Your task to perform on an android device: Show me recent news Image 0: 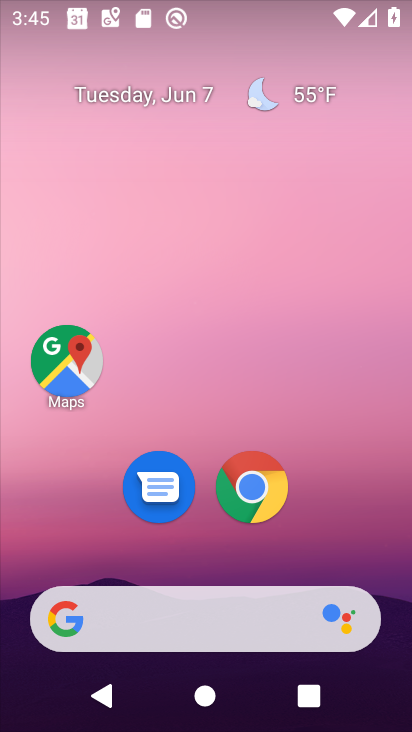
Step 0: press home button
Your task to perform on an android device: Show me recent news Image 1: 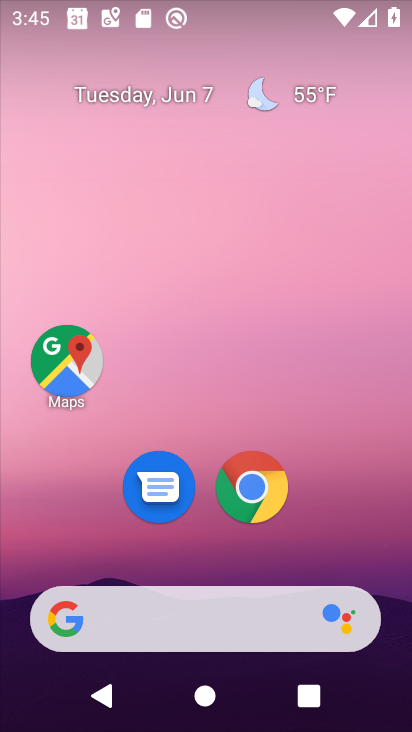
Step 1: drag from (212, 550) to (246, 114)
Your task to perform on an android device: Show me recent news Image 2: 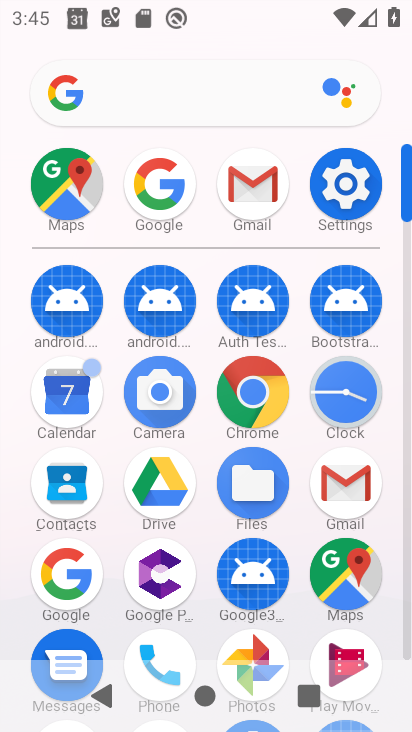
Step 2: click (58, 575)
Your task to perform on an android device: Show me recent news Image 3: 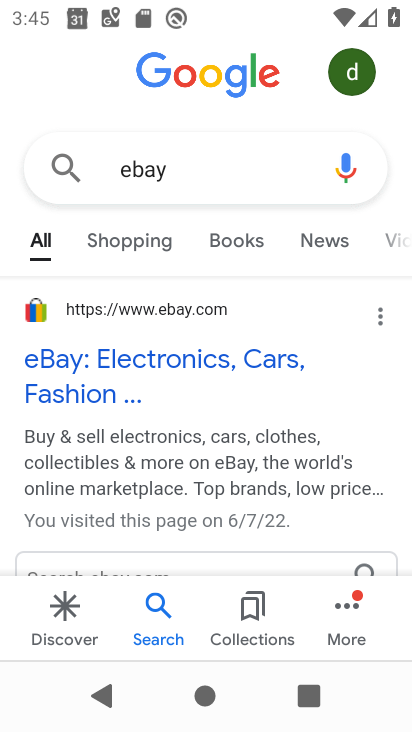
Step 3: click (224, 171)
Your task to perform on an android device: Show me recent news Image 4: 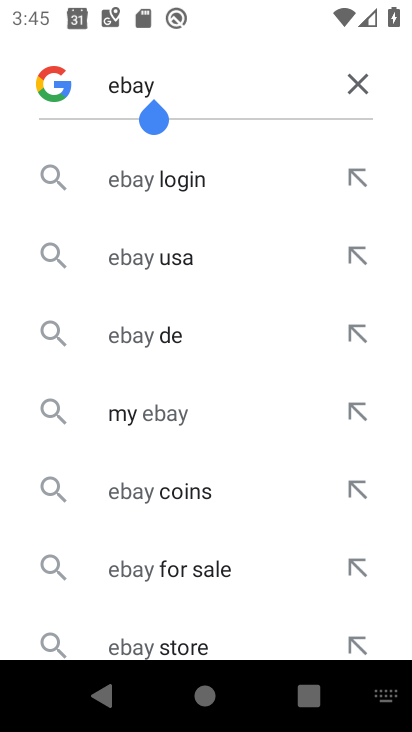
Step 4: click (354, 81)
Your task to perform on an android device: Show me recent news Image 5: 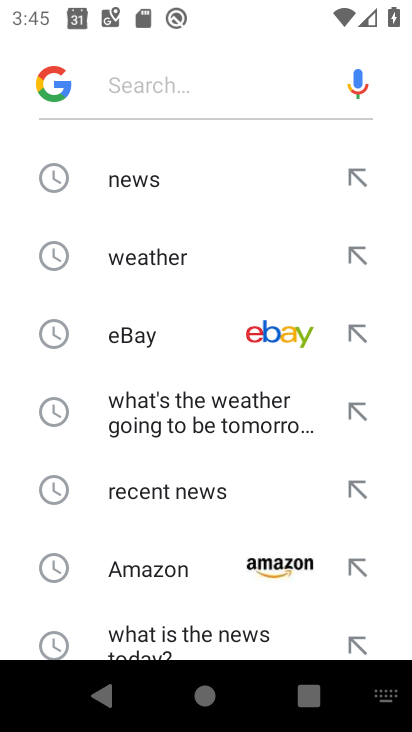
Step 5: click (185, 501)
Your task to perform on an android device: Show me recent news Image 6: 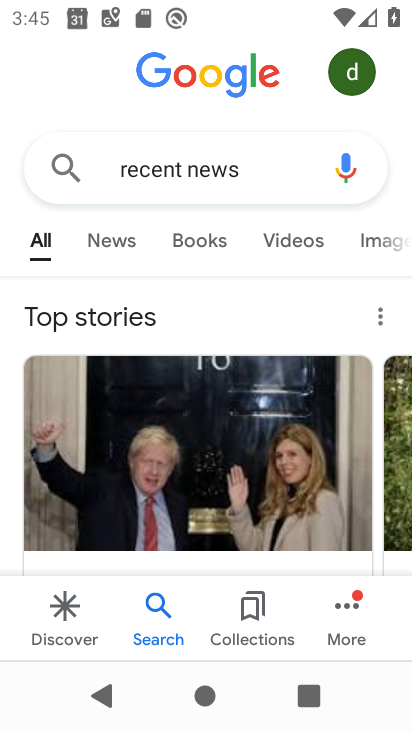
Step 6: task complete